Your task to perform on an android device: Show me the alarms in the clock app Image 0: 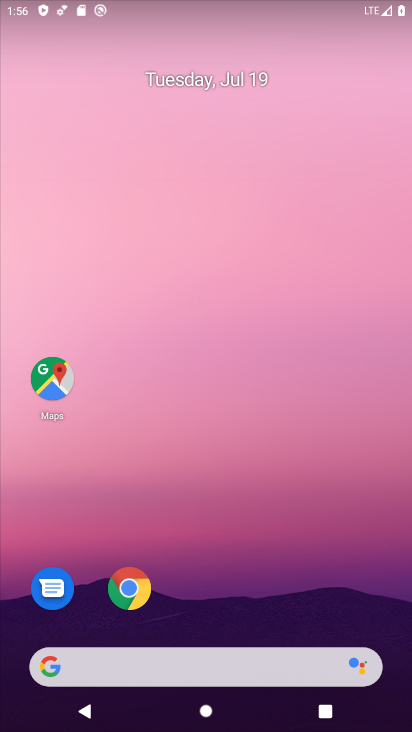
Step 0: drag from (282, 490) to (182, 3)
Your task to perform on an android device: Show me the alarms in the clock app Image 1: 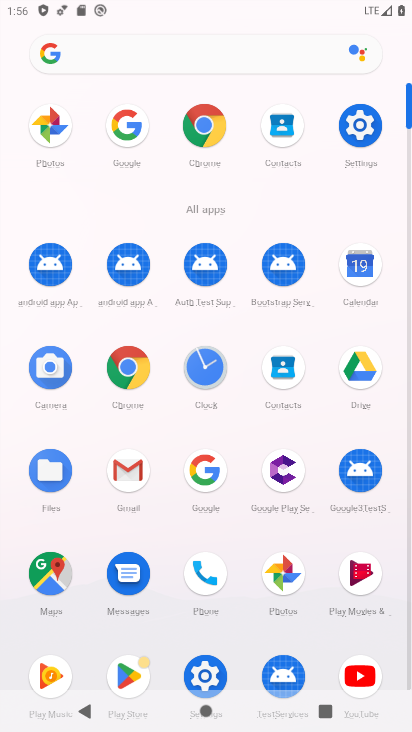
Step 1: click (211, 368)
Your task to perform on an android device: Show me the alarms in the clock app Image 2: 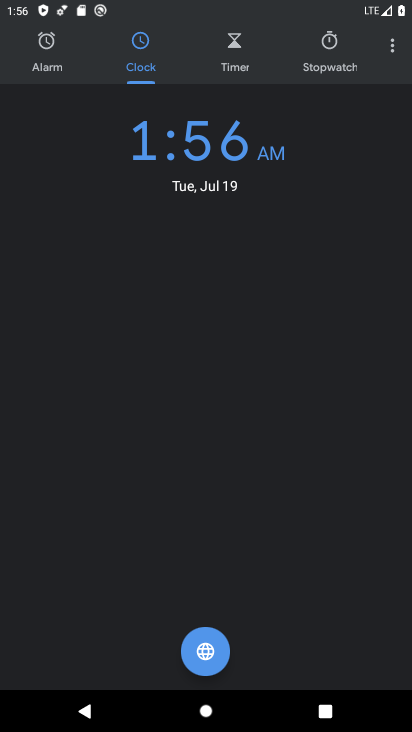
Step 2: click (51, 56)
Your task to perform on an android device: Show me the alarms in the clock app Image 3: 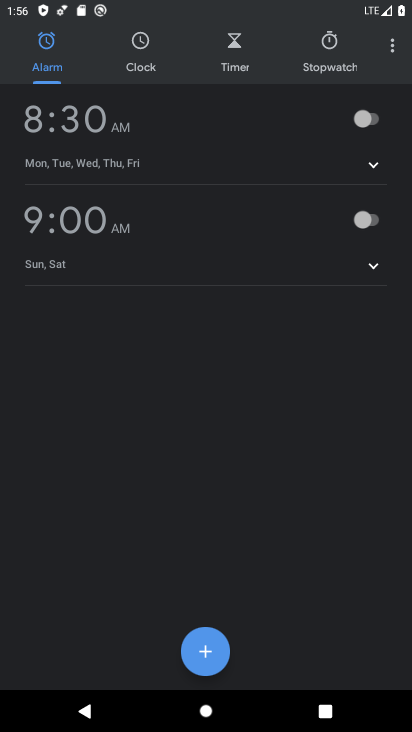
Step 3: task complete